Your task to perform on an android device: Open privacy settings Image 0: 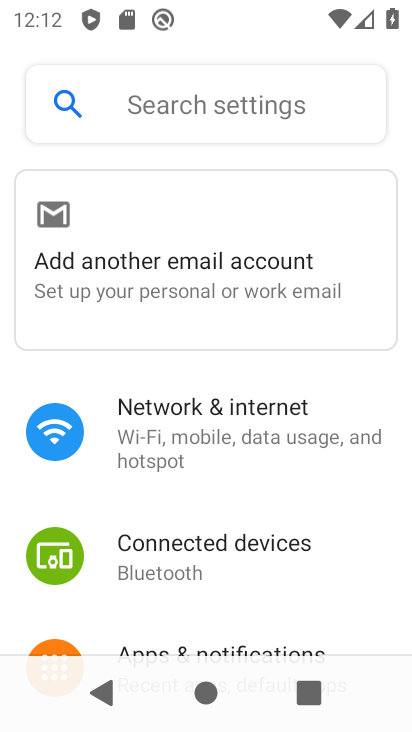
Step 0: press home button
Your task to perform on an android device: Open privacy settings Image 1: 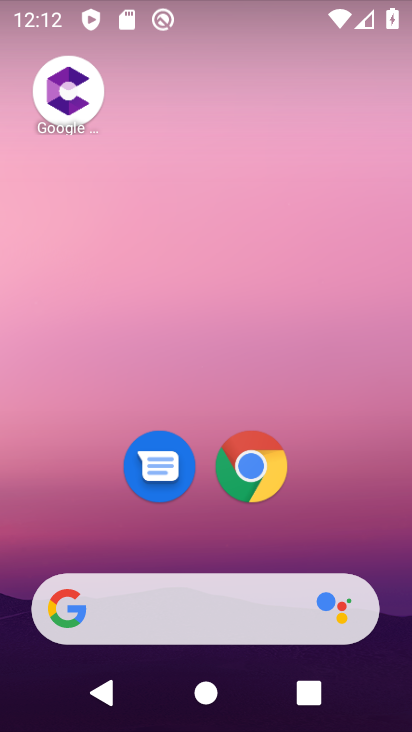
Step 1: drag from (167, 725) to (171, 88)
Your task to perform on an android device: Open privacy settings Image 2: 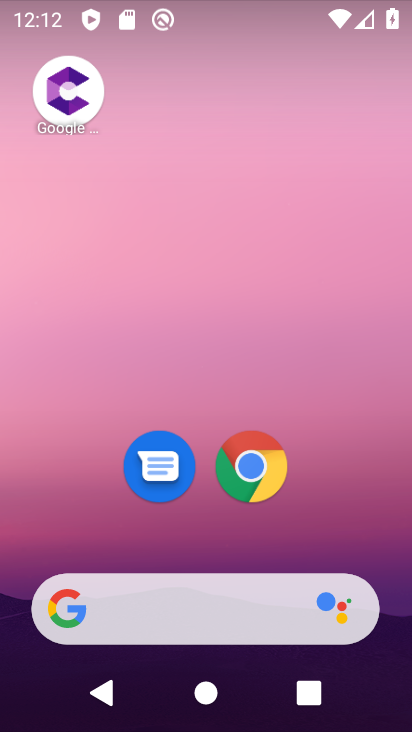
Step 2: drag from (160, 725) to (147, 23)
Your task to perform on an android device: Open privacy settings Image 3: 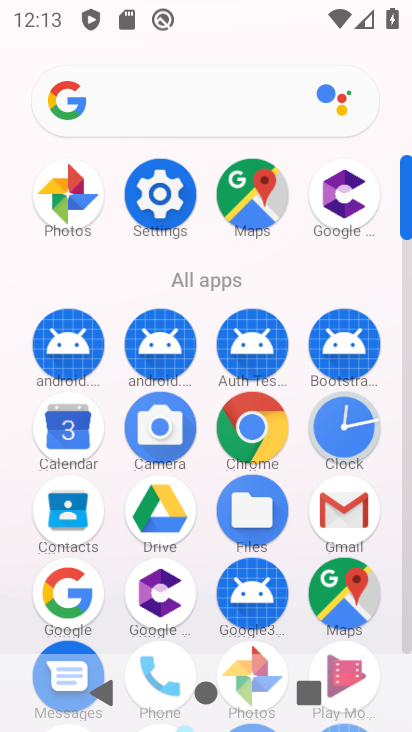
Step 3: click (165, 194)
Your task to perform on an android device: Open privacy settings Image 4: 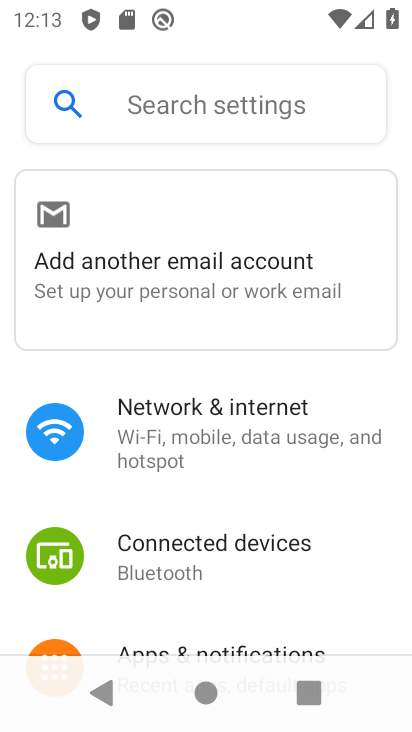
Step 4: drag from (253, 561) to (274, 219)
Your task to perform on an android device: Open privacy settings Image 5: 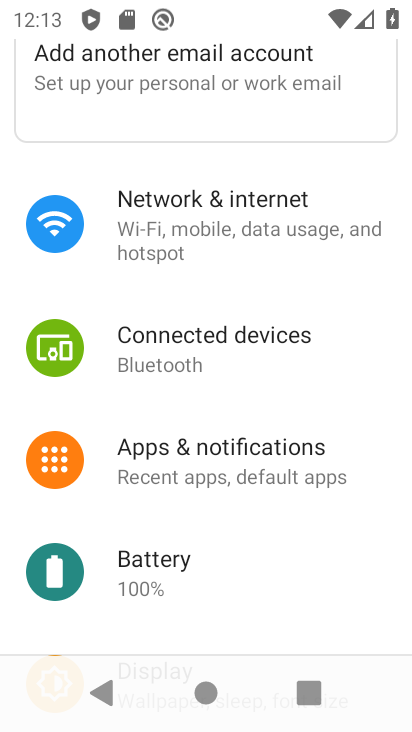
Step 5: drag from (250, 565) to (274, 157)
Your task to perform on an android device: Open privacy settings Image 6: 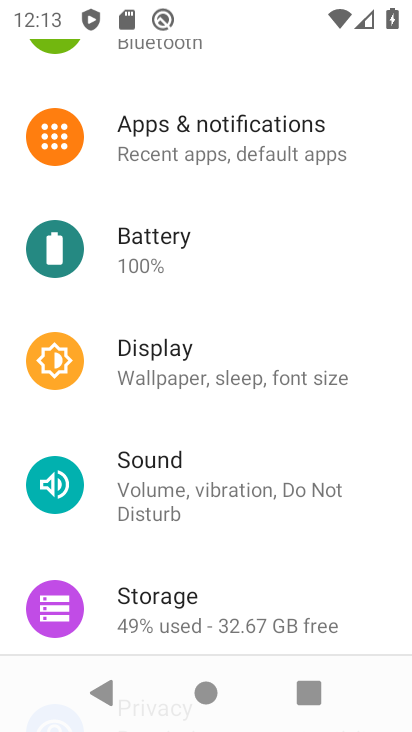
Step 6: drag from (281, 573) to (282, 163)
Your task to perform on an android device: Open privacy settings Image 7: 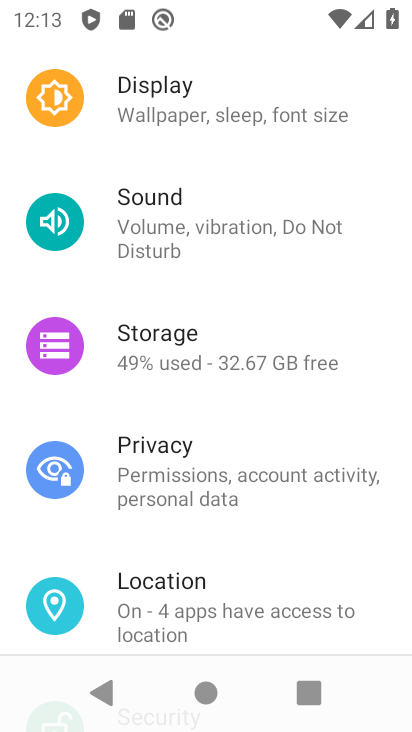
Step 7: drag from (237, 500) to (243, 154)
Your task to perform on an android device: Open privacy settings Image 8: 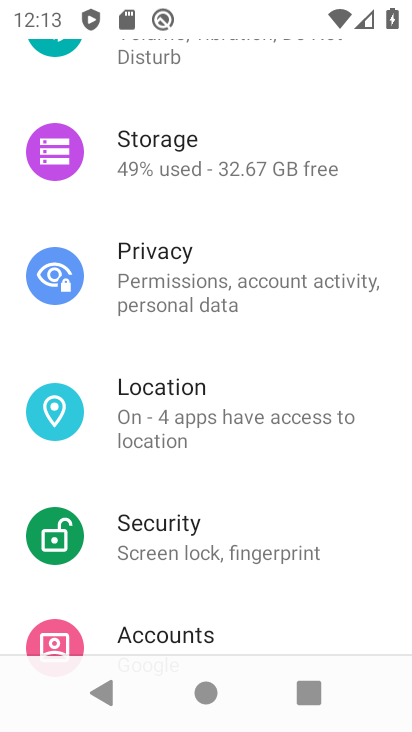
Step 8: click (194, 292)
Your task to perform on an android device: Open privacy settings Image 9: 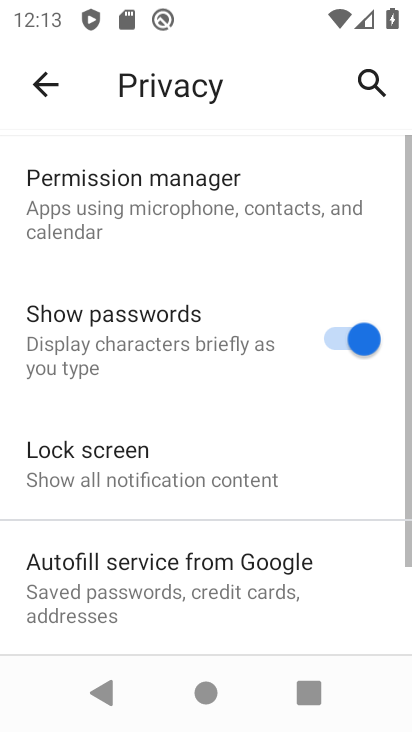
Step 9: task complete